Your task to perform on an android device: snooze an email in the gmail app Image 0: 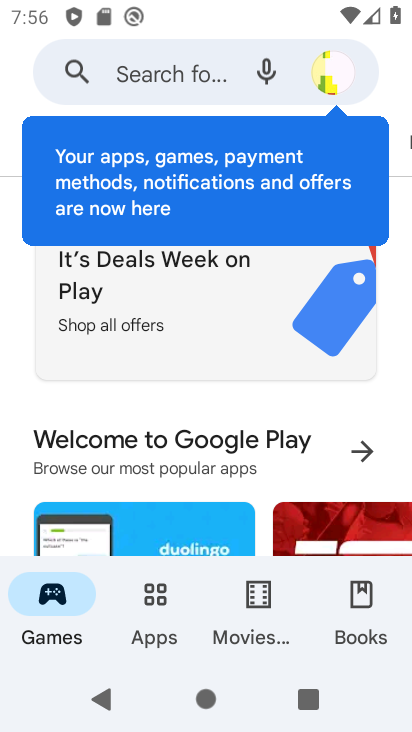
Step 0: press home button
Your task to perform on an android device: snooze an email in the gmail app Image 1: 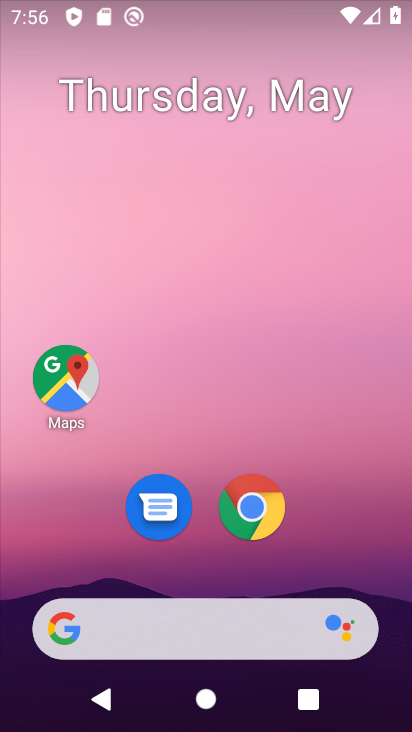
Step 1: drag from (324, 579) to (265, 145)
Your task to perform on an android device: snooze an email in the gmail app Image 2: 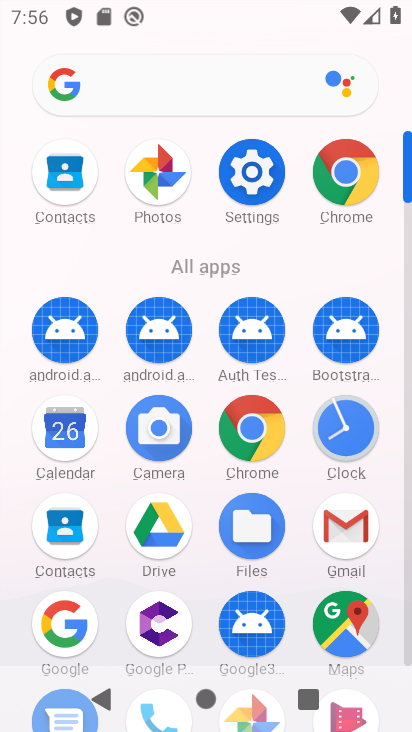
Step 2: click (326, 508)
Your task to perform on an android device: snooze an email in the gmail app Image 3: 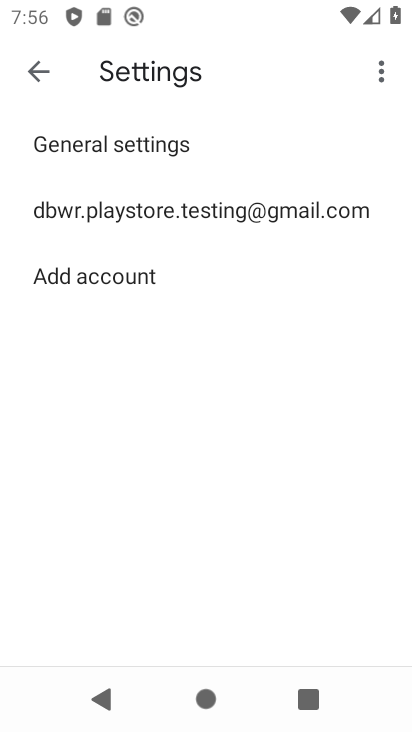
Step 3: click (36, 72)
Your task to perform on an android device: snooze an email in the gmail app Image 4: 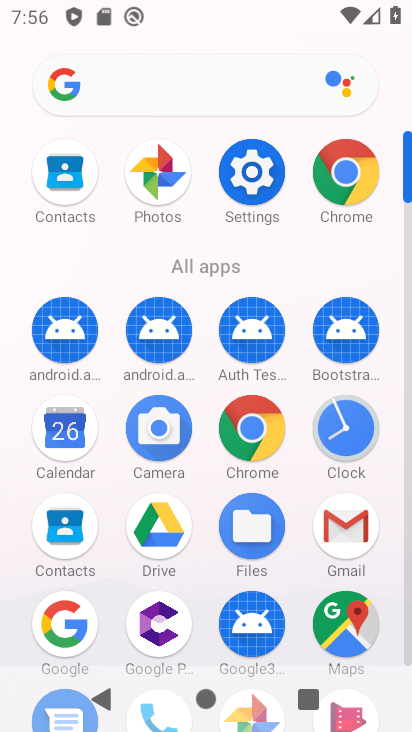
Step 4: click (348, 525)
Your task to perform on an android device: snooze an email in the gmail app Image 5: 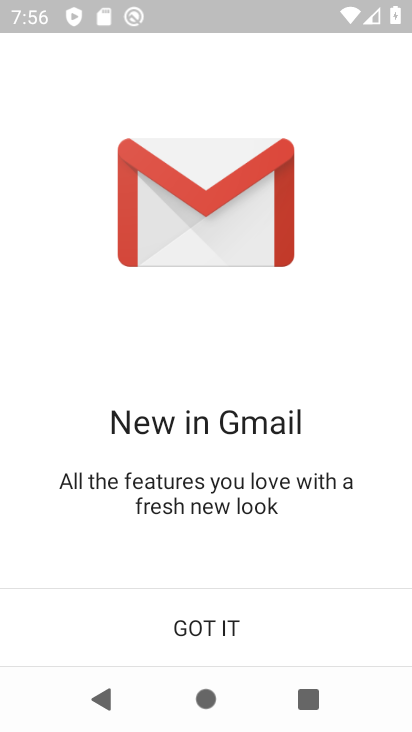
Step 5: click (205, 633)
Your task to perform on an android device: snooze an email in the gmail app Image 6: 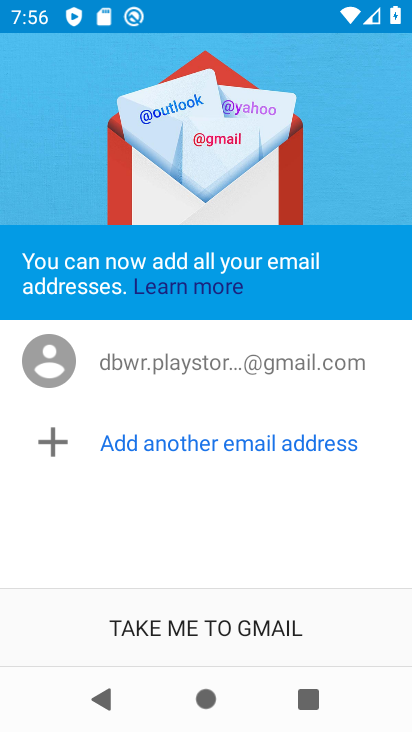
Step 6: click (204, 630)
Your task to perform on an android device: snooze an email in the gmail app Image 7: 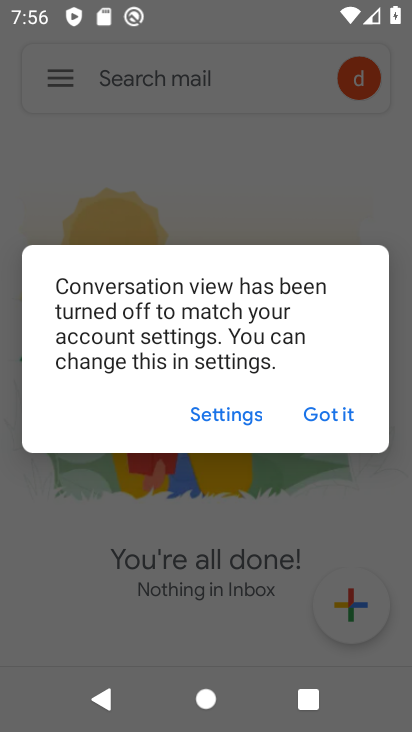
Step 7: click (323, 420)
Your task to perform on an android device: snooze an email in the gmail app Image 8: 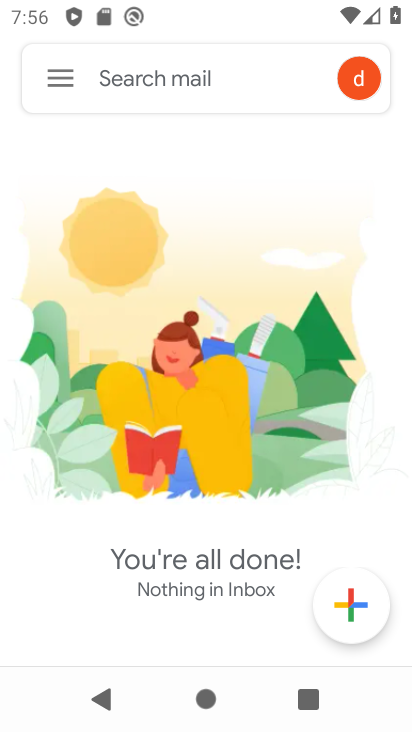
Step 8: click (60, 75)
Your task to perform on an android device: snooze an email in the gmail app Image 9: 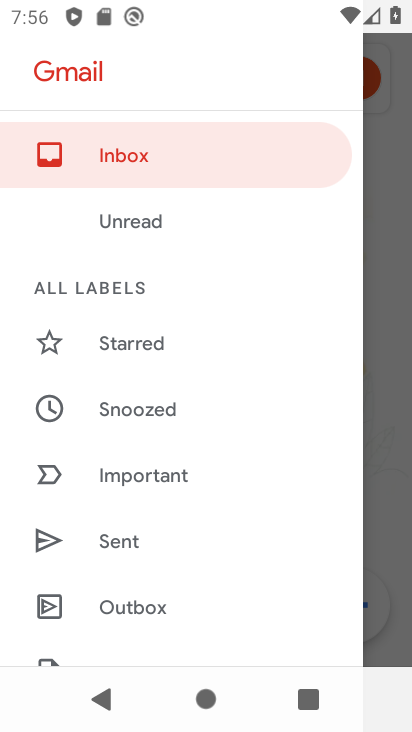
Step 9: click (116, 148)
Your task to perform on an android device: snooze an email in the gmail app Image 10: 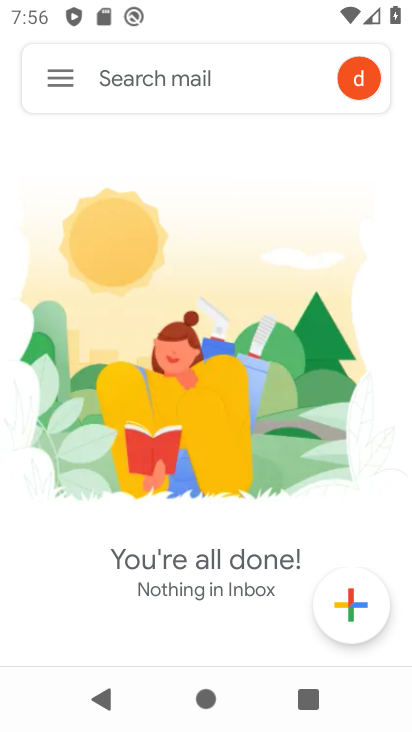
Step 10: task complete